Your task to perform on an android device: check android version Image 0: 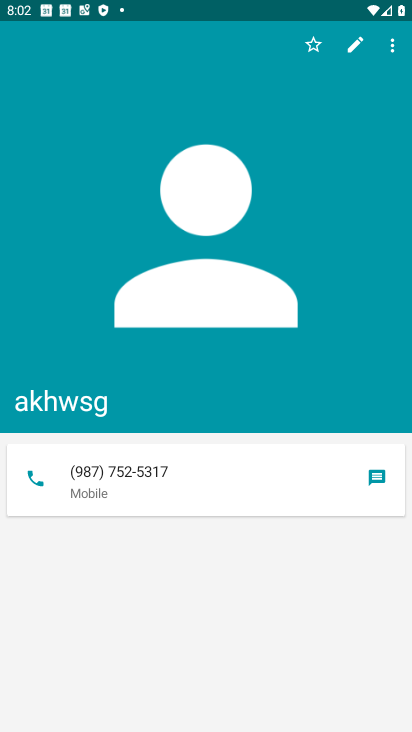
Step 0: press home button
Your task to perform on an android device: check android version Image 1: 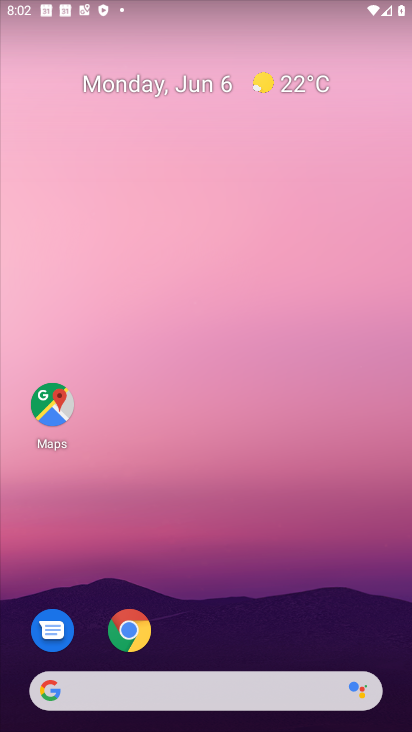
Step 1: drag from (135, 728) to (167, 123)
Your task to perform on an android device: check android version Image 2: 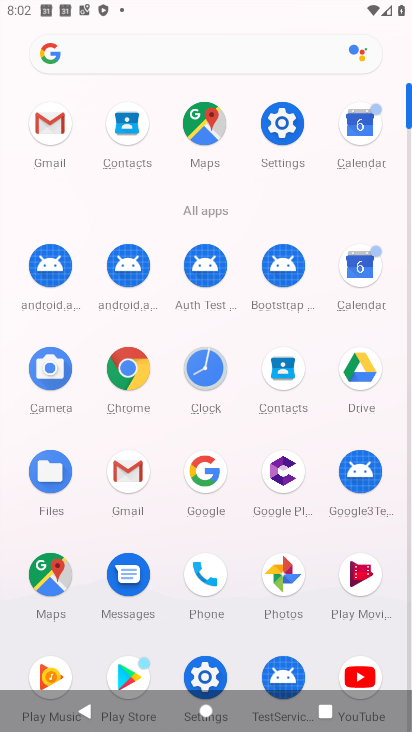
Step 2: click (280, 129)
Your task to perform on an android device: check android version Image 3: 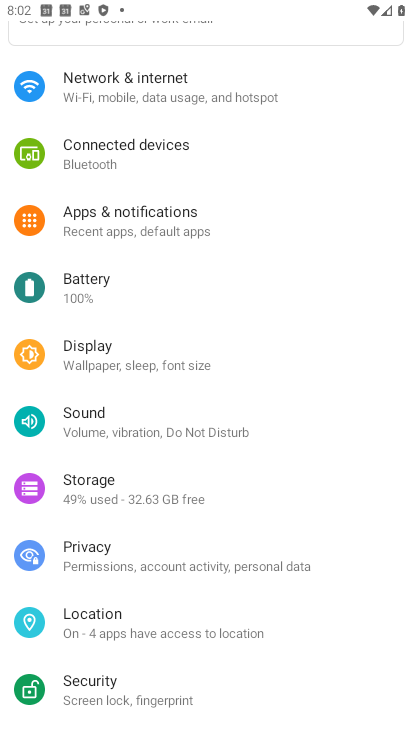
Step 3: drag from (225, 706) to (294, 69)
Your task to perform on an android device: check android version Image 4: 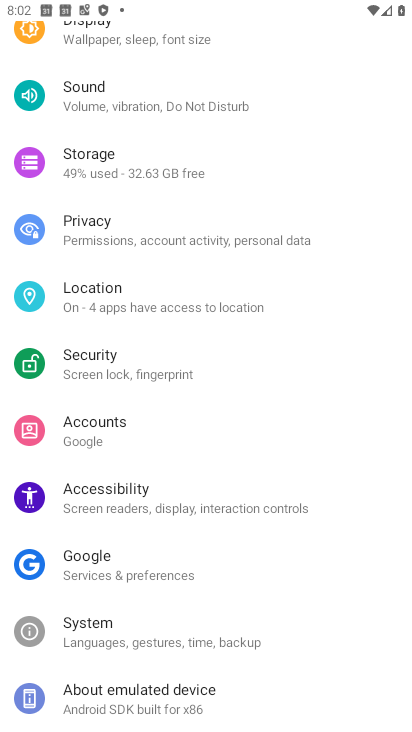
Step 4: click (173, 708)
Your task to perform on an android device: check android version Image 5: 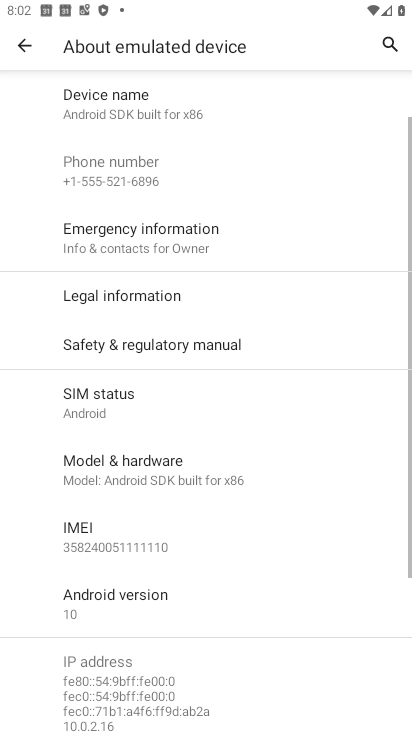
Step 5: click (205, 622)
Your task to perform on an android device: check android version Image 6: 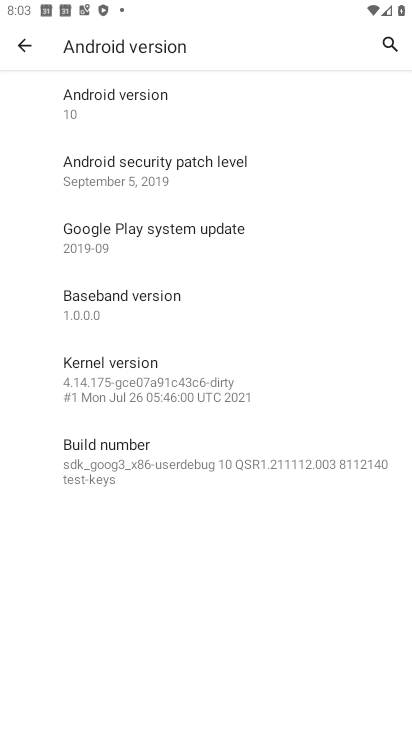
Step 6: task complete